Your task to perform on an android device: turn pop-ups on in chrome Image 0: 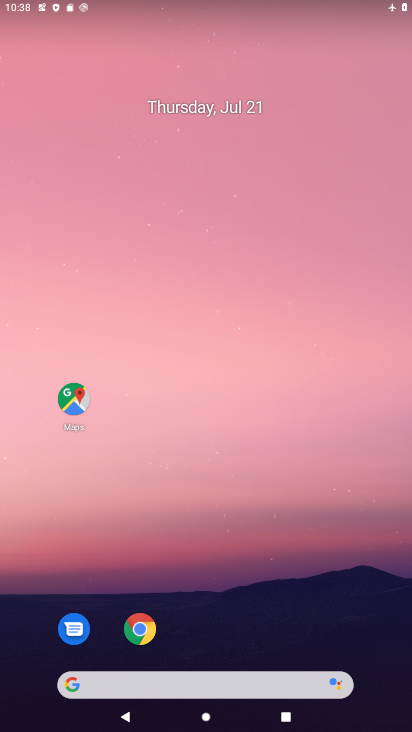
Step 0: press home button
Your task to perform on an android device: turn pop-ups on in chrome Image 1: 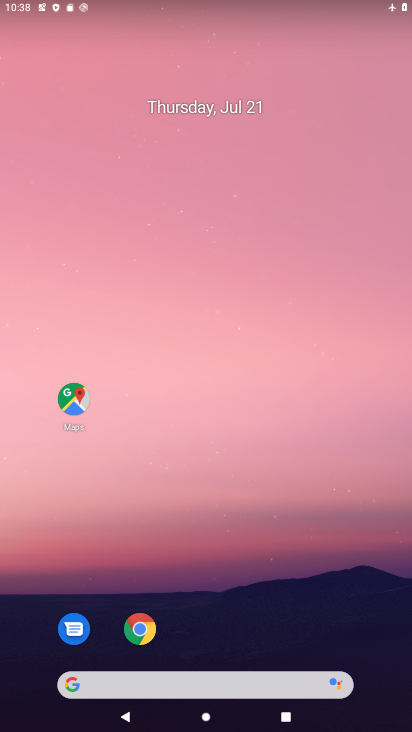
Step 1: drag from (220, 633) to (202, 28)
Your task to perform on an android device: turn pop-ups on in chrome Image 2: 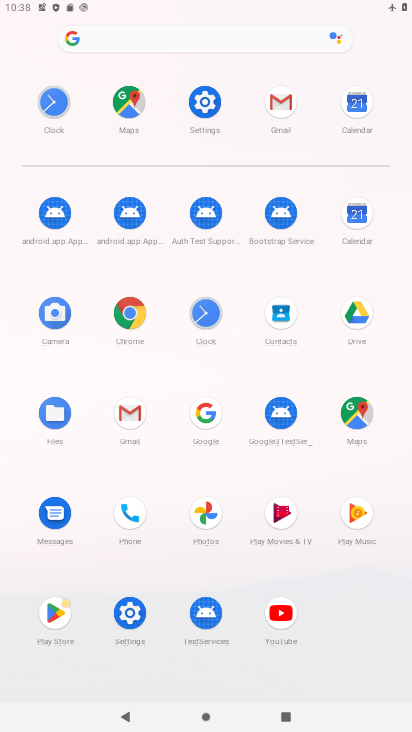
Step 2: click (124, 315)
Your task to perform on an android device: turn pop-ups on in chrome Image 3: 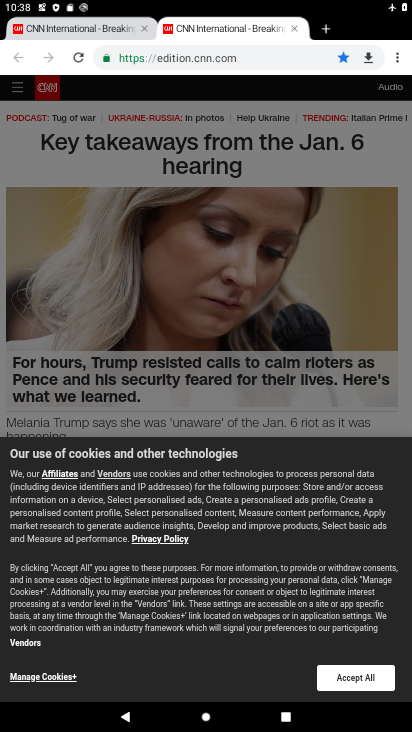
Step 3: drag from (399, 60) to (265, 394)
Your task to perform on an android device: turn pop-ups on in chrome Image 4: 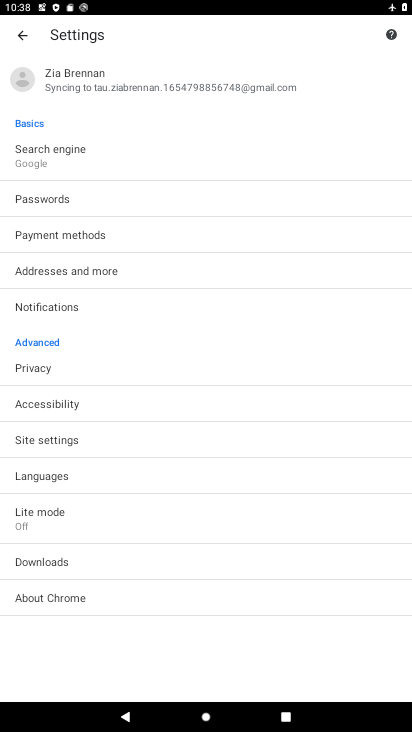
Step 4: click (51, 442)
Your task to perform on an android device: turn pop-ups on in chrome Image 5: 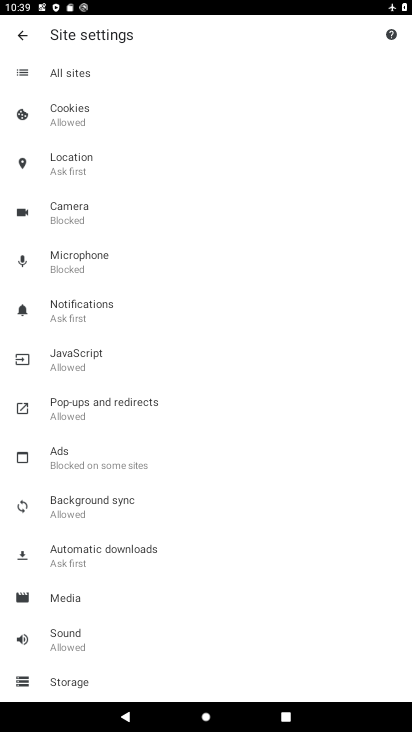
Step 5: click (81, 403)
Your task to perform on an android device: turn pop-ups on in chrome Image 6: 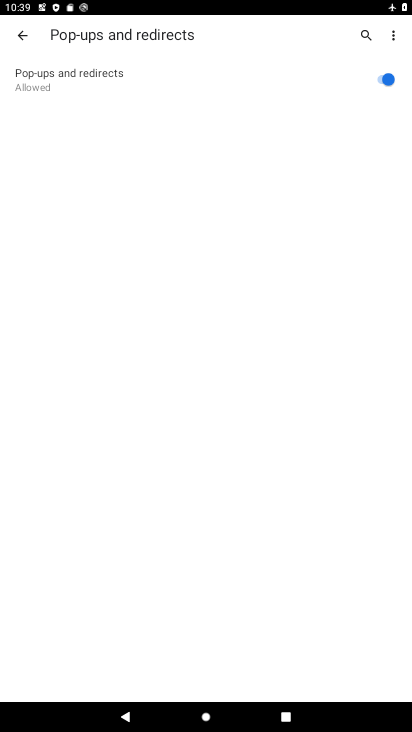
Step 6: task complete